Your task to perform on an android device: Turn off the flashlight Image 0: 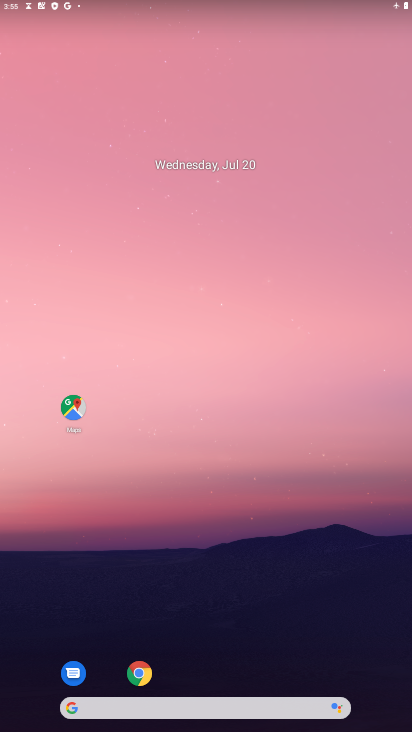
Step 0: press home button
Your task to perform on an android device: Turn off the flashlight Image 1: 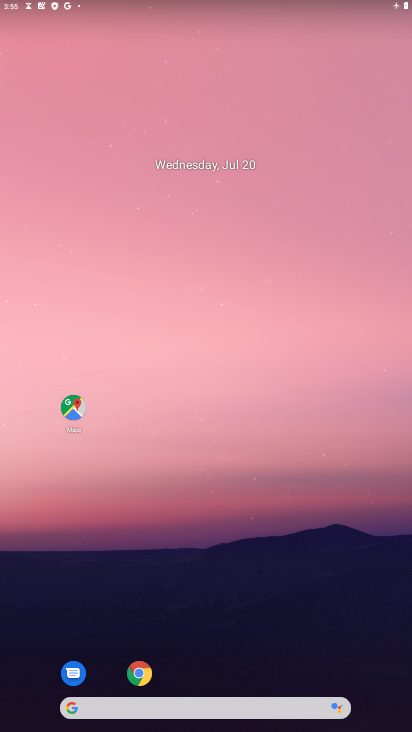
Step 1: task complete